Your task to perform on an android device: Go to Wikipedia Image 0: 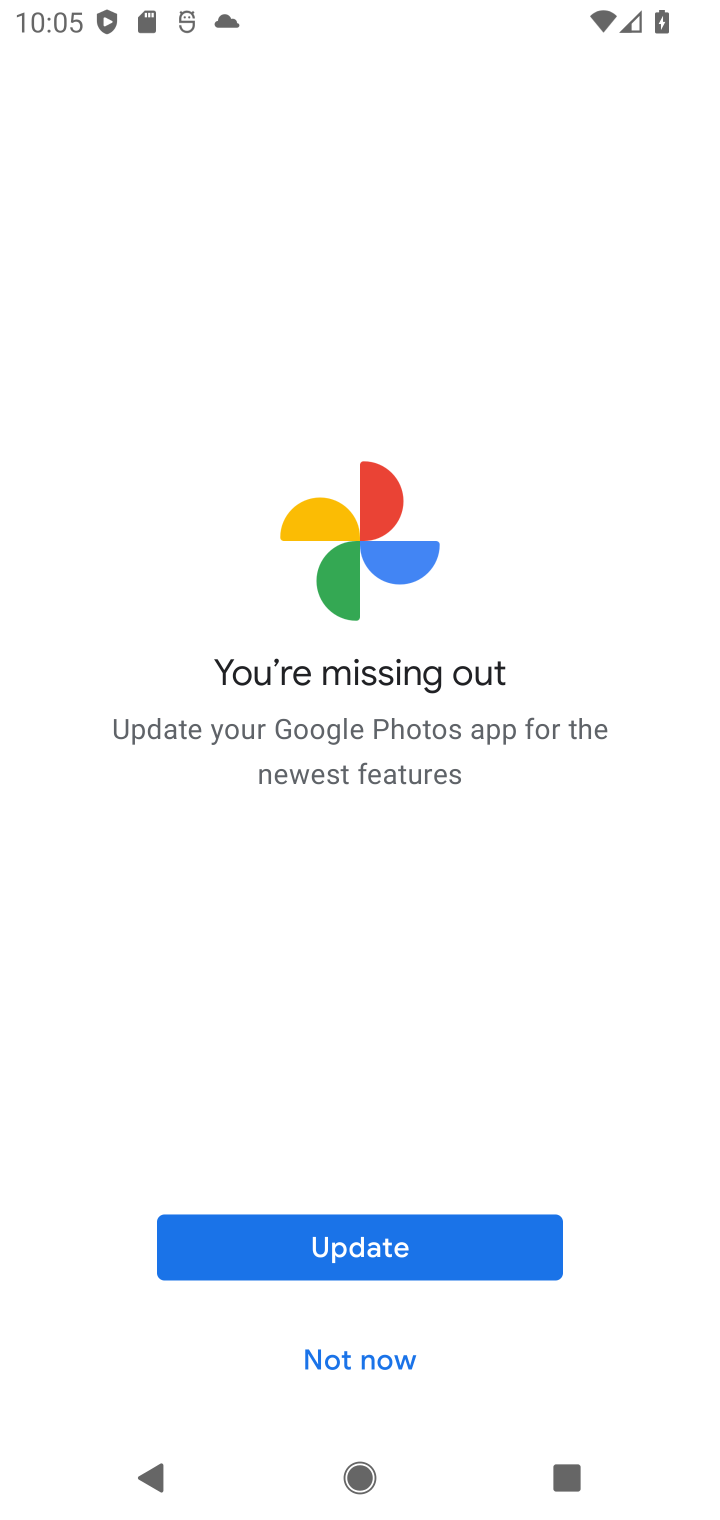
Step 0: press home button
Your task to perform on an android device: Go to Wikipedia Image 1: 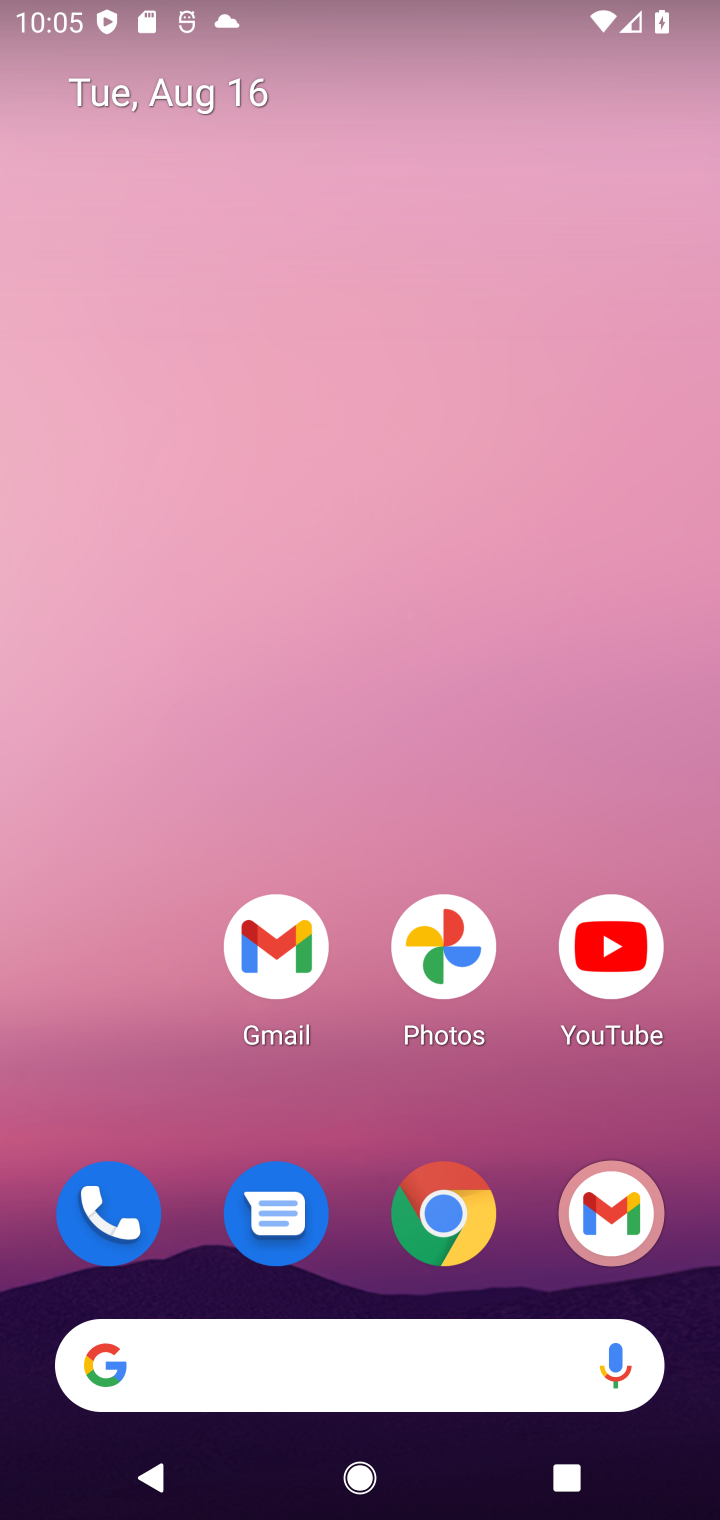
Step 1: drag from (378, 1282) to (383, 577)
Your task to perform on an android device: Go to Wikipedia Image 2: 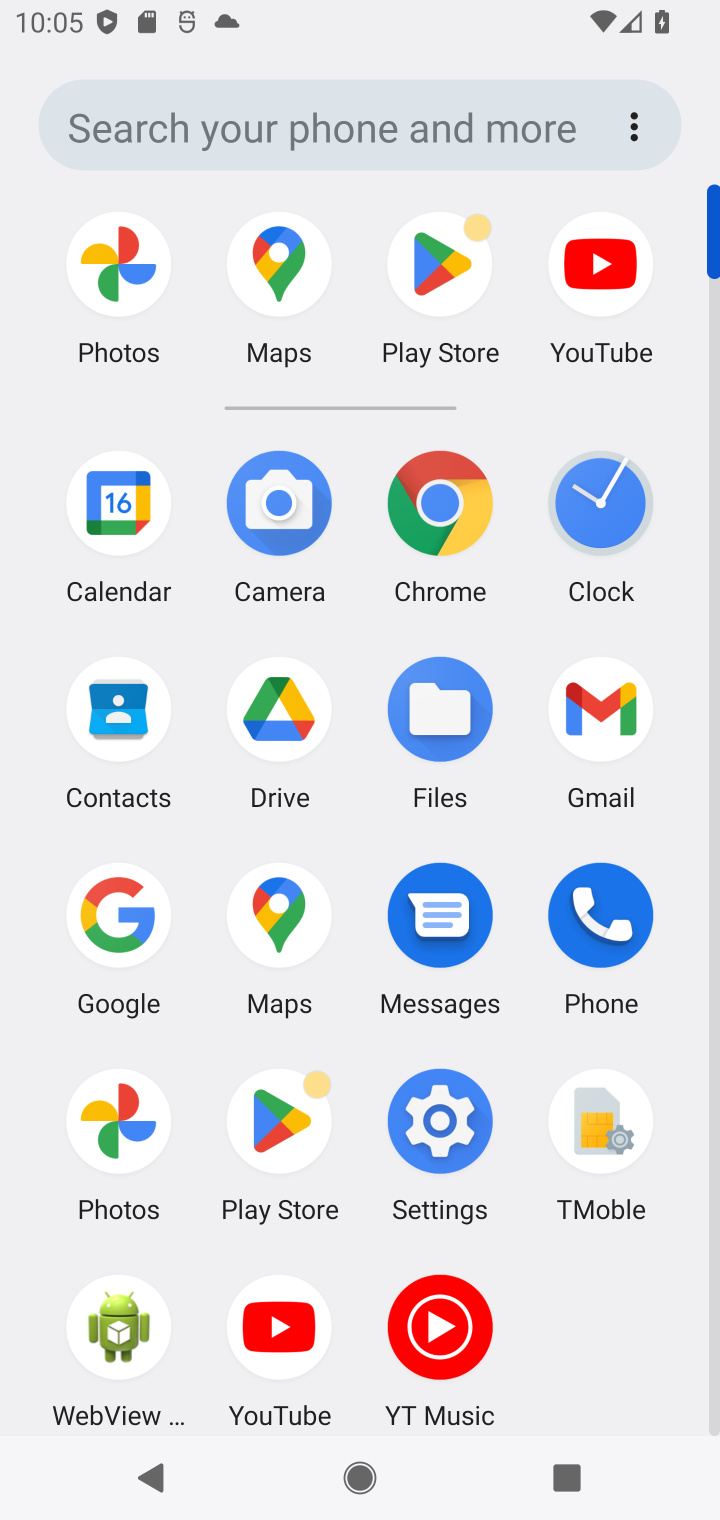
Step 2: click (453, 493)
Your task to perform on an android device: Go to Wikipedia Image 3: 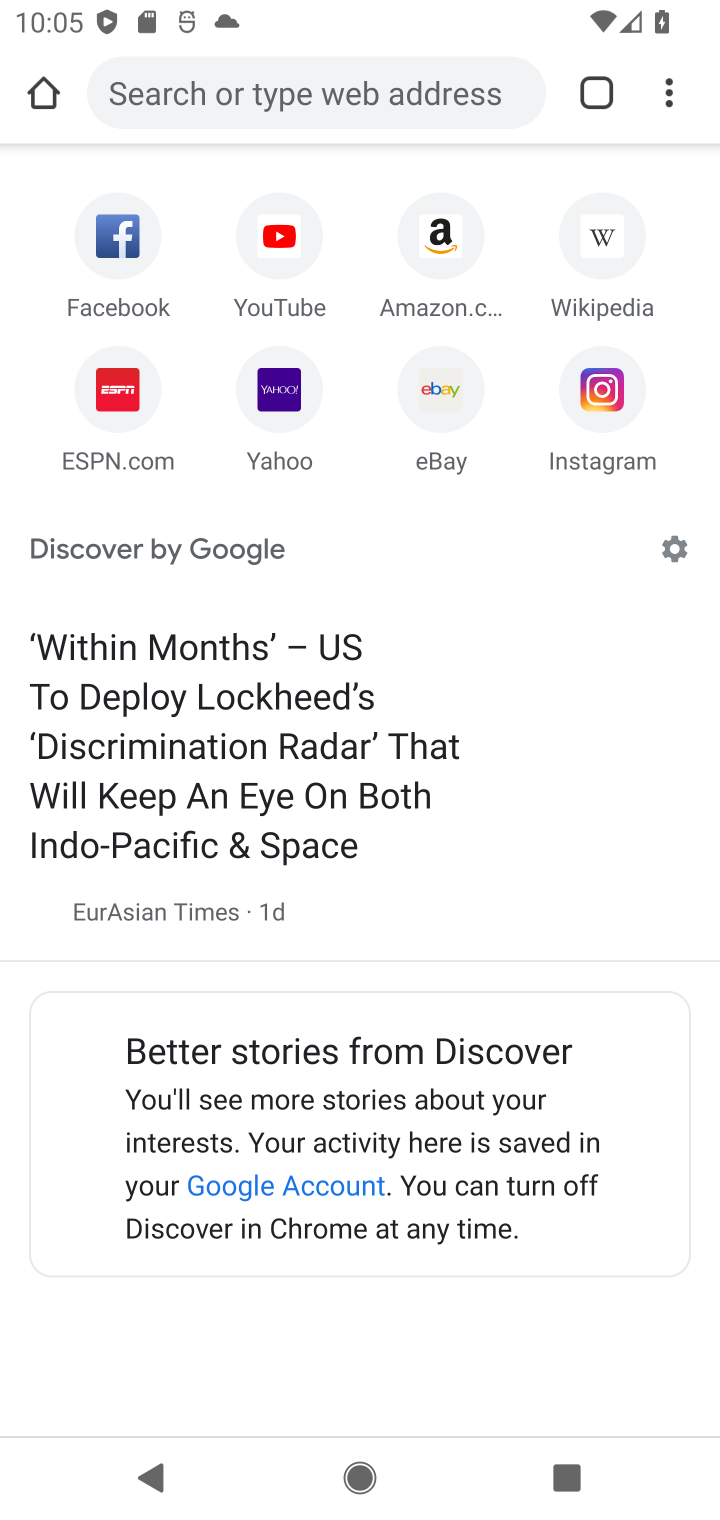
Step 3: click (669, 89)
Your task to perform on an android device: Go to Wikipedia Image 4: 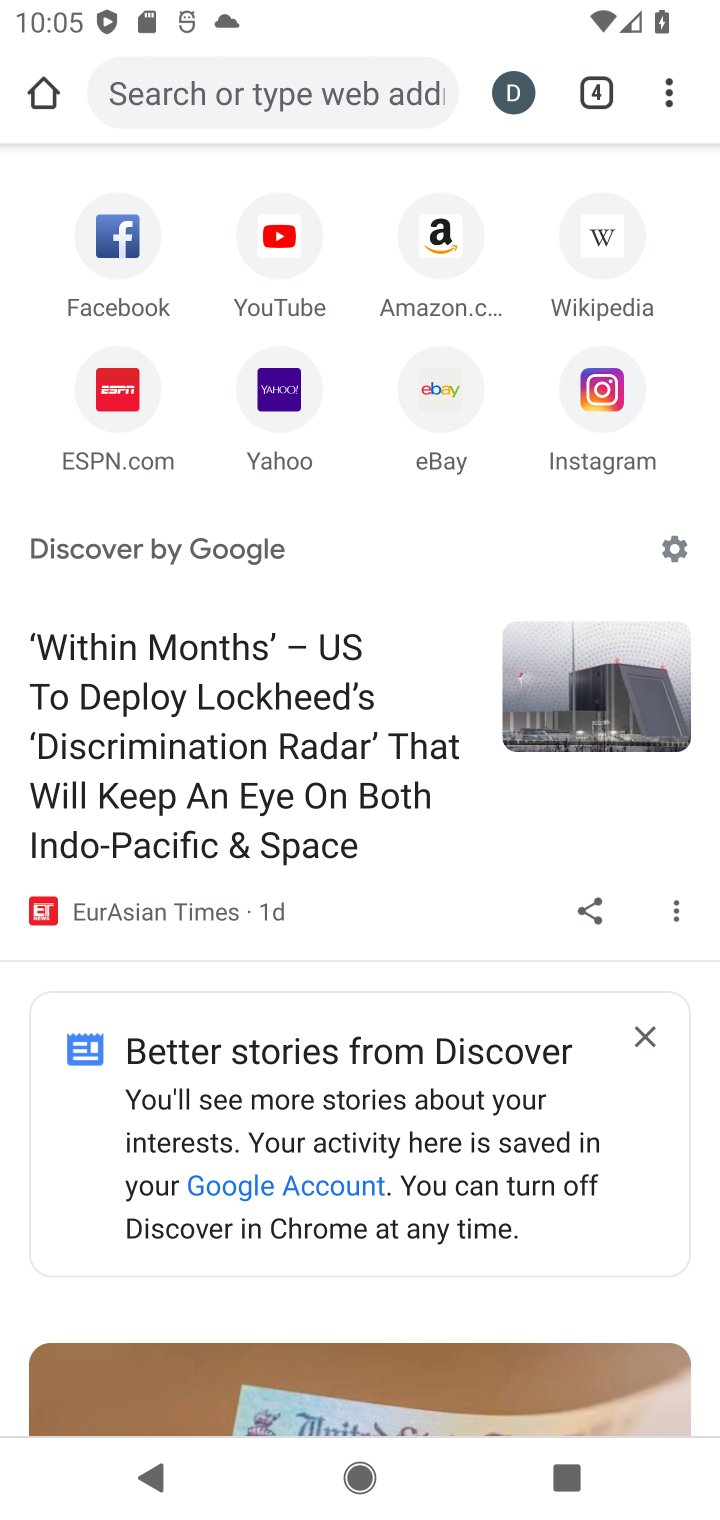
Step 4: click (602, 250)
Your task to perform on an android device: Go to Wikipedia Image 5: 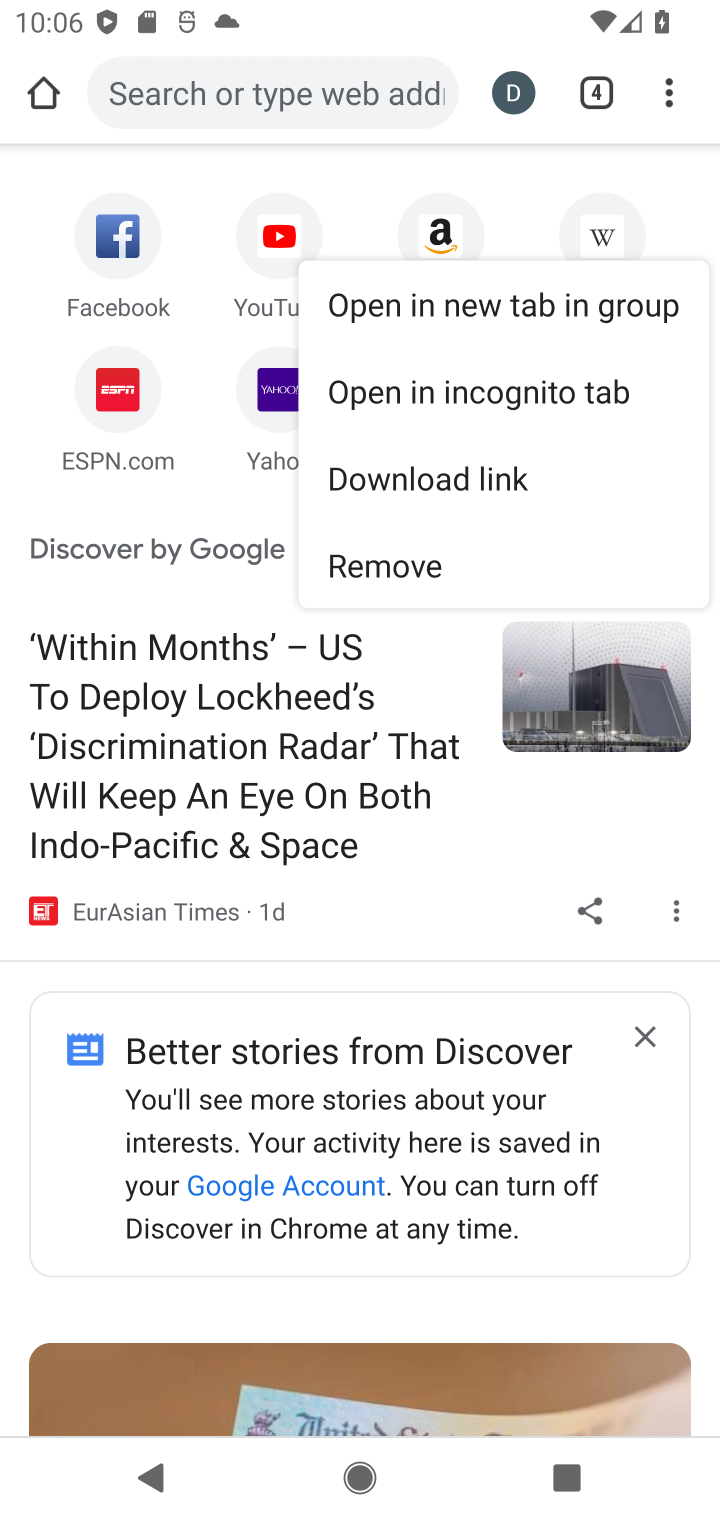
Step 5: click (605, 213)
Your task to perform on an android device: Go to Wikipedia Image 6: 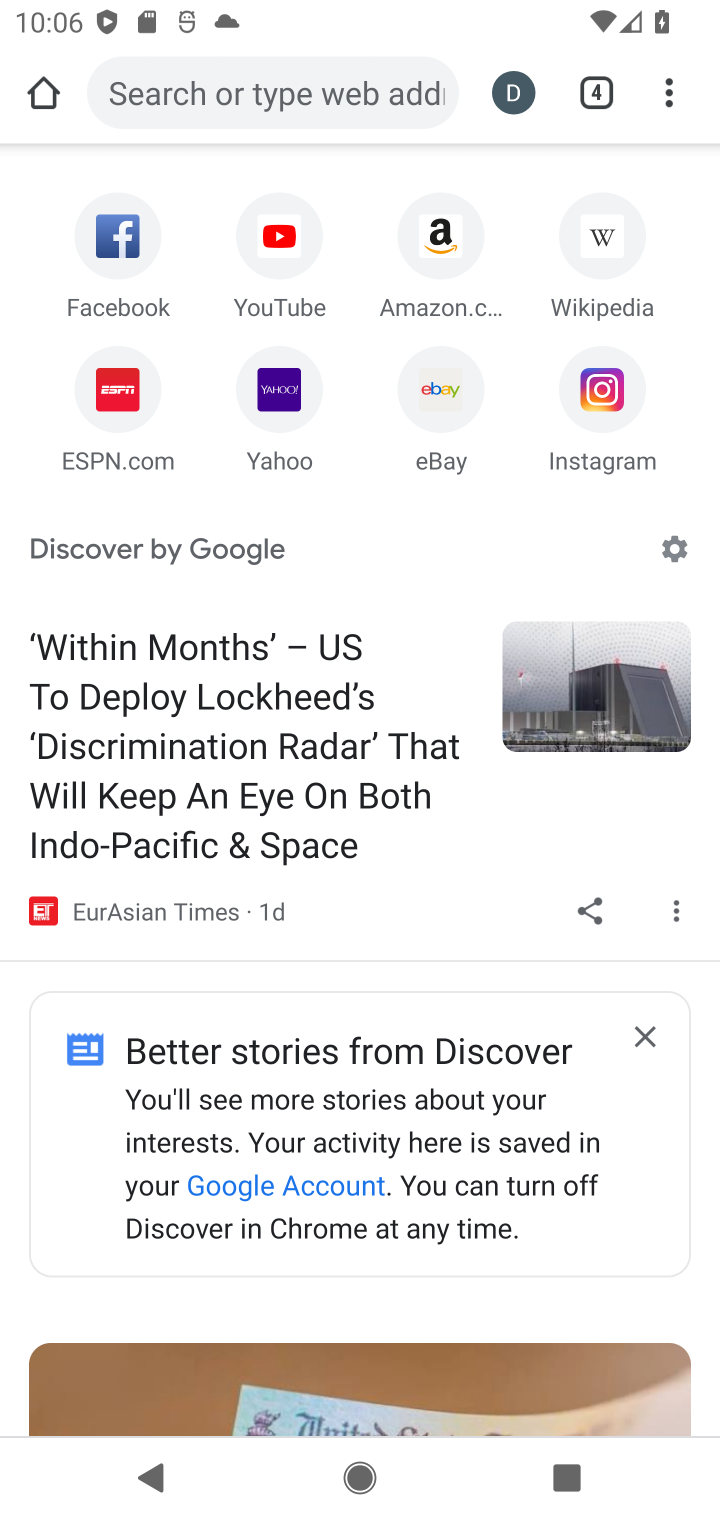
Step 6: click (589, 223)
Your task to perform on an android device: Go to Wikipedia Image 7: 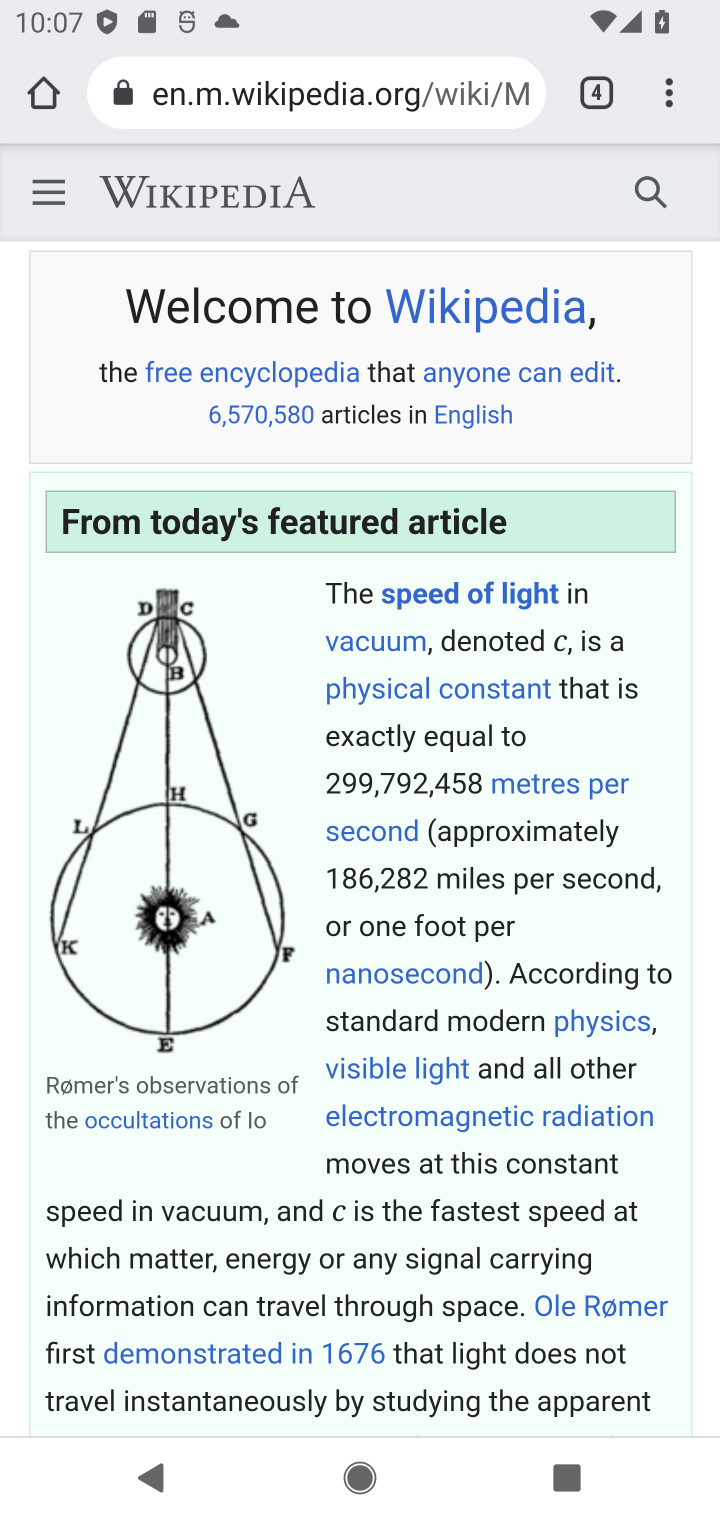
Step 7: task complete